Your task to perform on an android device: turn off smart reply in the gmail app Image 0: 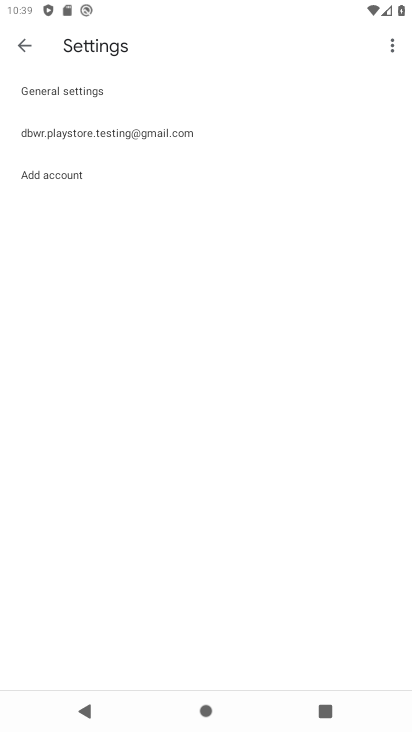
Step 0: click (124, 134)
Your task to perform on an android device: turn off smart reply in the gmail app Image 1: 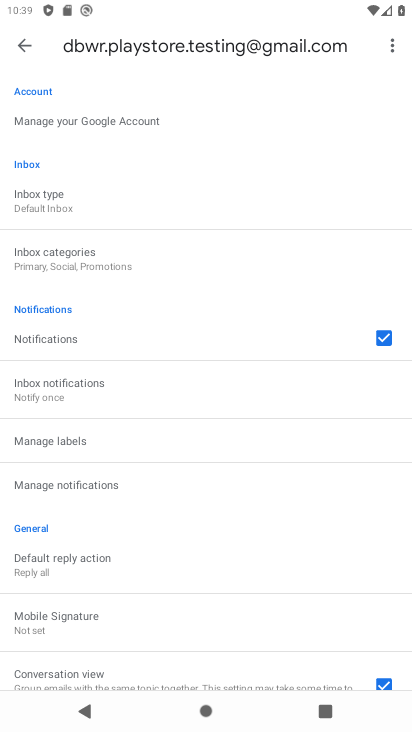
Step 1: click (23, 196)
Your task to perform on an android device: turn off smart reply in the gmail app Image 2: 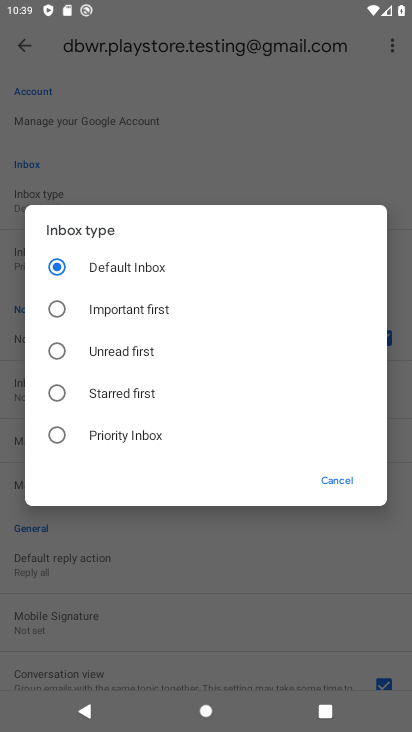
Step 2: click (319, 483)
Your task to perform on an android device: turn off smart reply in the gmail app Image 3: 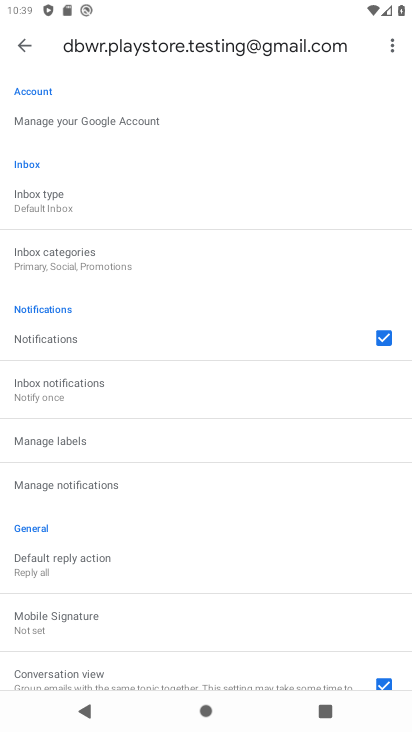
Step 3: drag from (192, 632) to (151, 258)
Your task to perform on an android device: turn off smart reply in the gmail app Image 4: 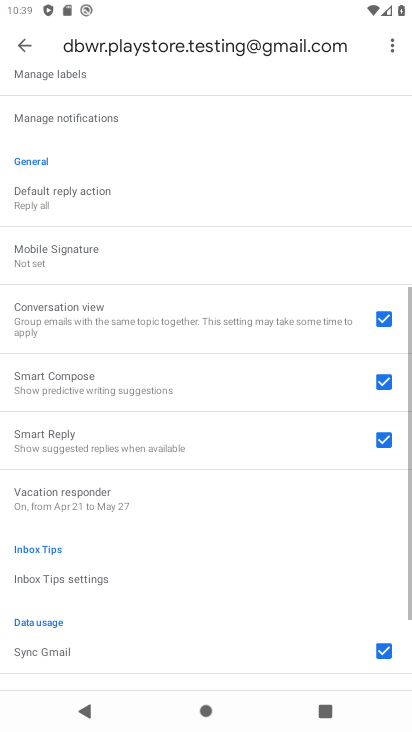
Step 4: drag from (159, 514) to (150, 316)
Your task to perform on an android device: turn off smart reply in the gmail app Image 5: 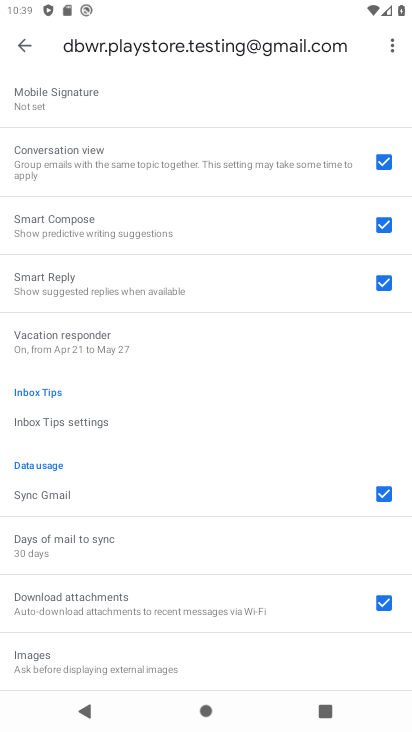
Step 5: click (381, 285)
Your task to perform on an android device: turn off smart reply in the gmail app Image 6: 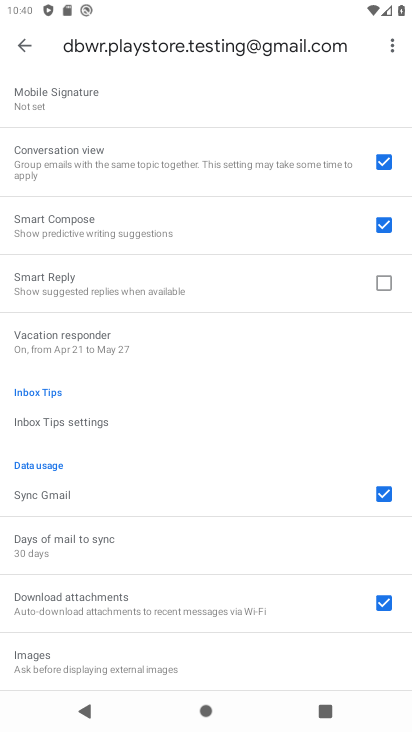
Step 6: task complete